Your task to perform on an android device: add a contact Image 0: 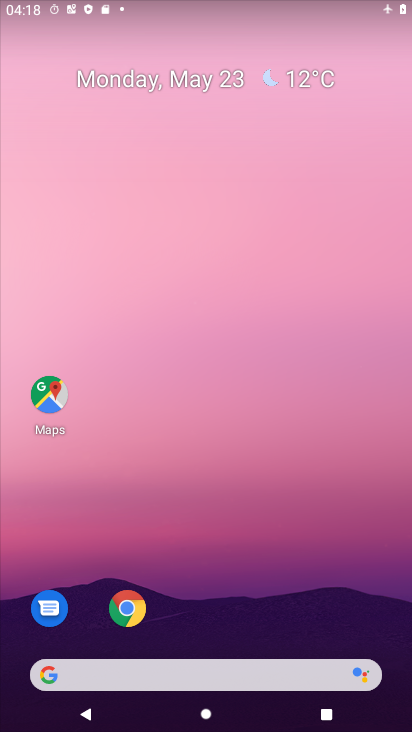
Step 0: drag from (311, 572) to (262, 17)
Your task to perform on an android device: add a contact Image 1: 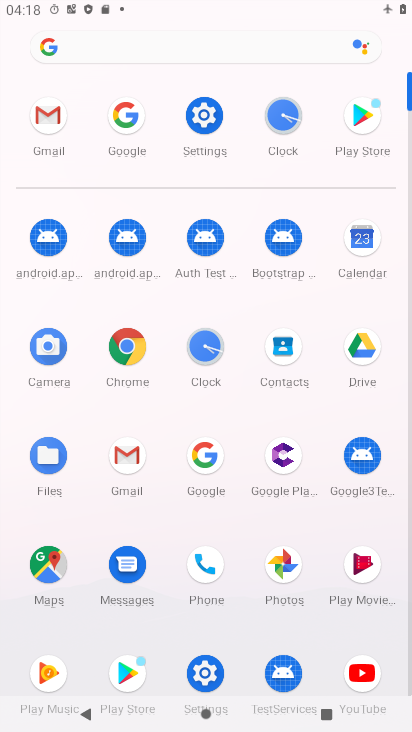
Step 1: click (287, 350)
Your task to perform on an android device: add a contact Image 2: 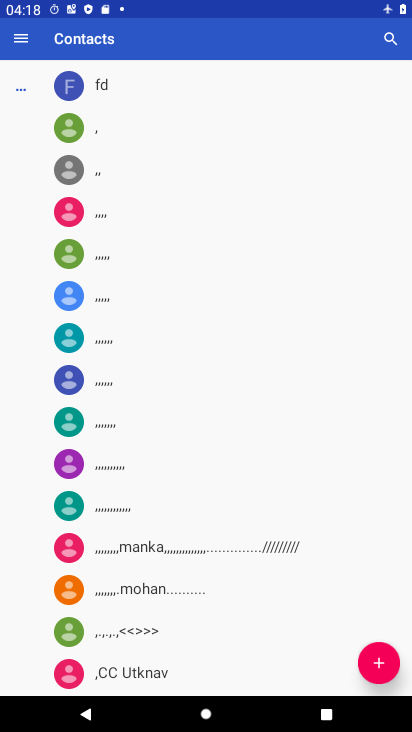
Step 2: click (372, 656)
Your task to perform on an android device: add a contact Image 3: 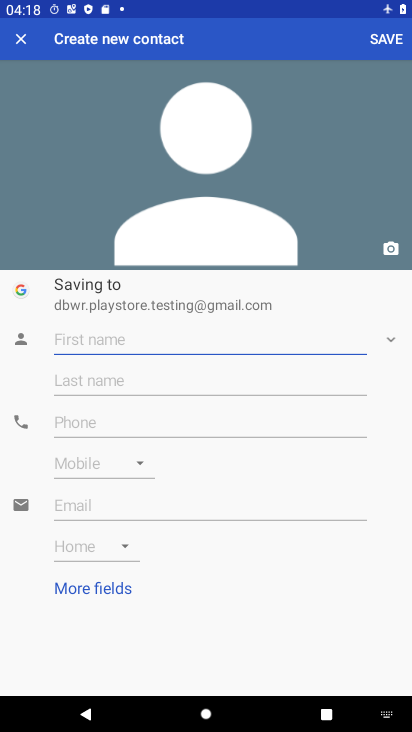
Step 3: type "rgsdf"
Your task to perform on an android device: add a contact Image 4: 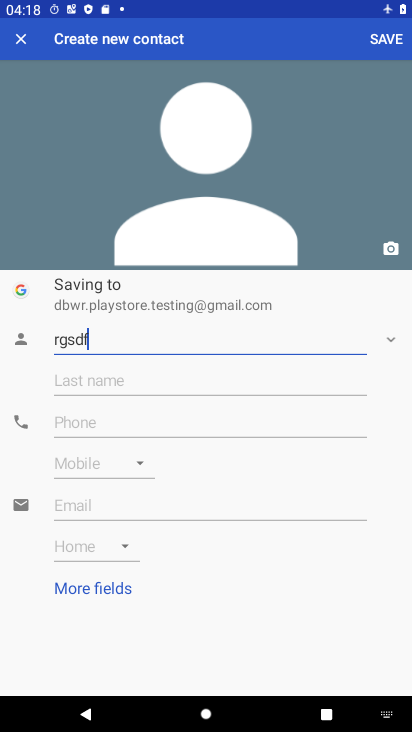
Step 4: click (263, 388)
Your task to perform on an android device: add a contact Image 5: 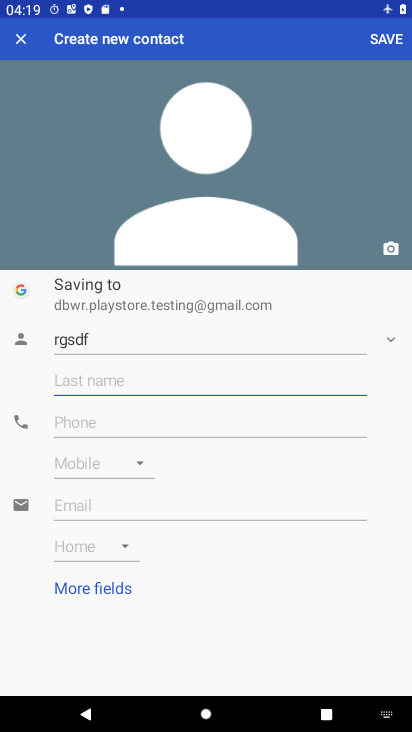
Step 5: type "gsdfg"
Your task to perform on an android device: add a contact Image 6: 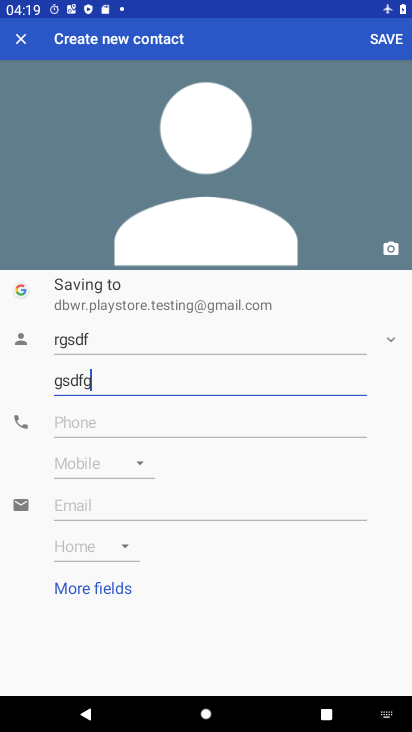
Step 6: type ""
Your task to perform on an android device: add a contact Image 7: 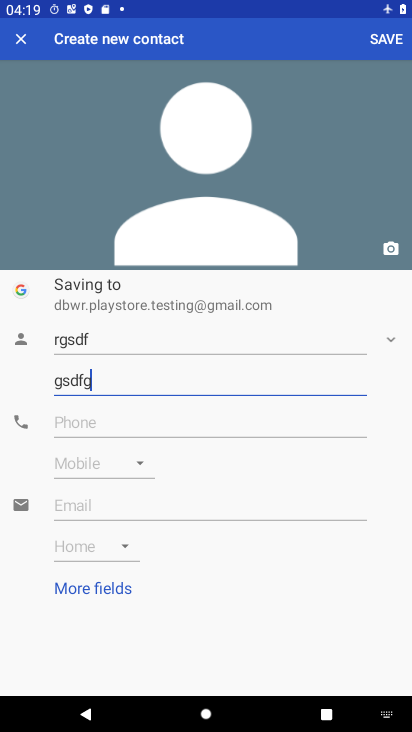
Step 7: click (241, 421)
Your task to perform on an android device: add a contact Image 8: 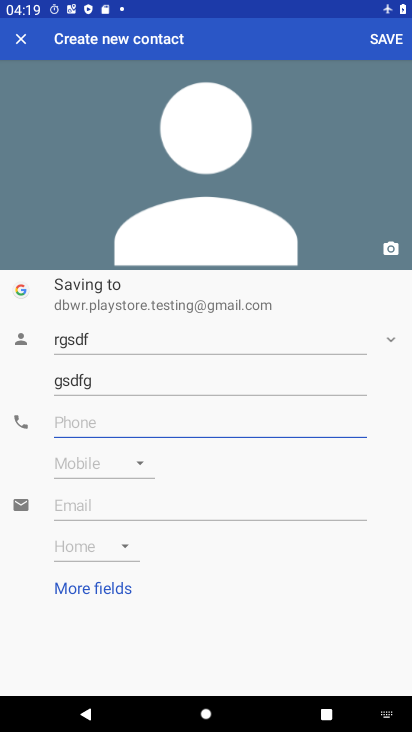
Step 8: type "563456456"
Your task to perform on an android device: add a contact Image 9: 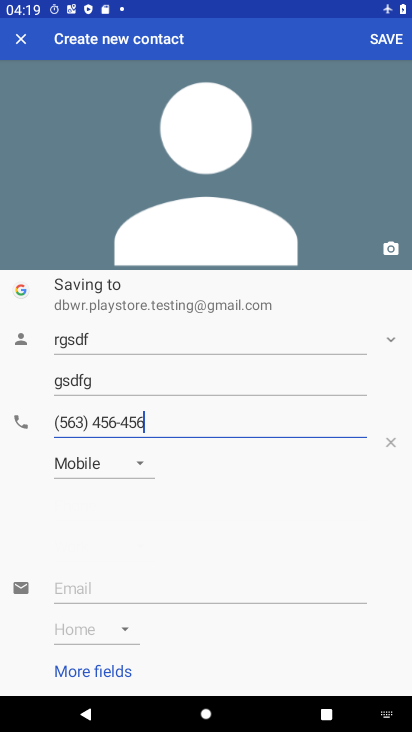
Step 9: type ""
Your task to perform on an android device: add a contact Image 10: 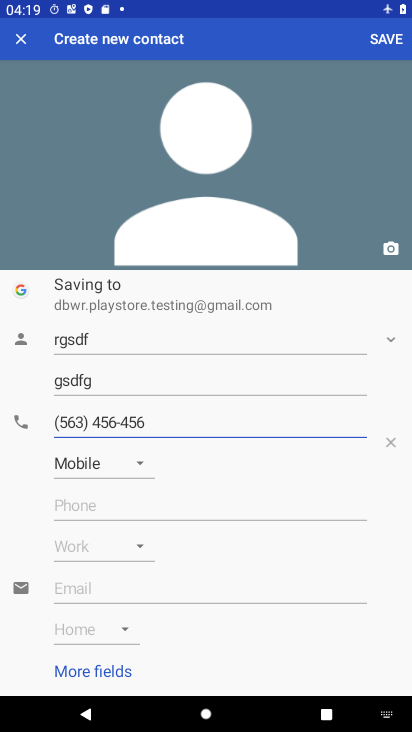
Step 10: click (380, 38)
Your task to perform on an android device: add a contact Image 11: 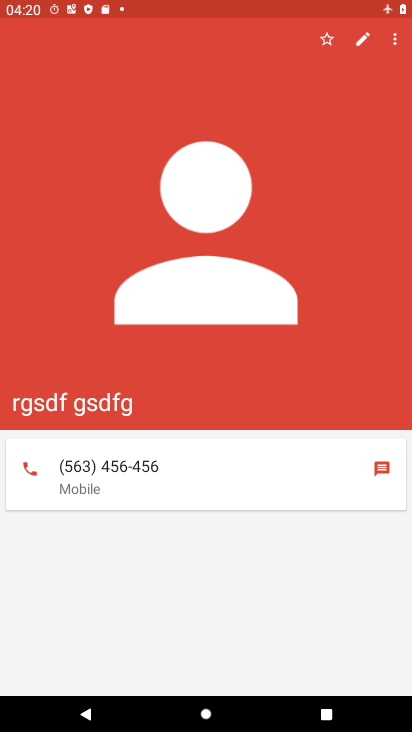
Step 11: task complete